Your task to perform on an android device: check data usage Image 0: 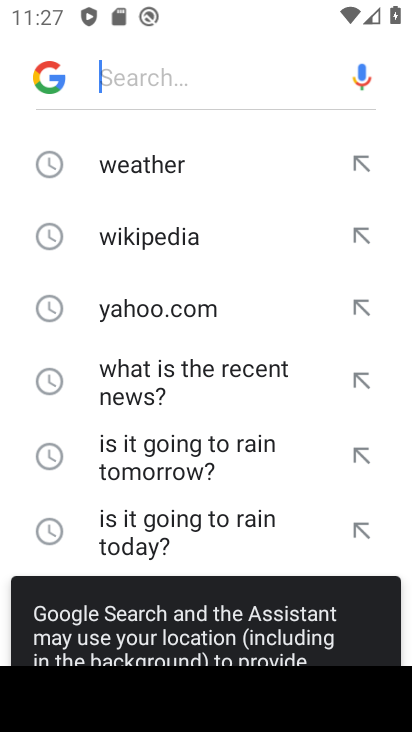
Step 0: press home button
Your task to perform on an android device: check data usage Image 1: 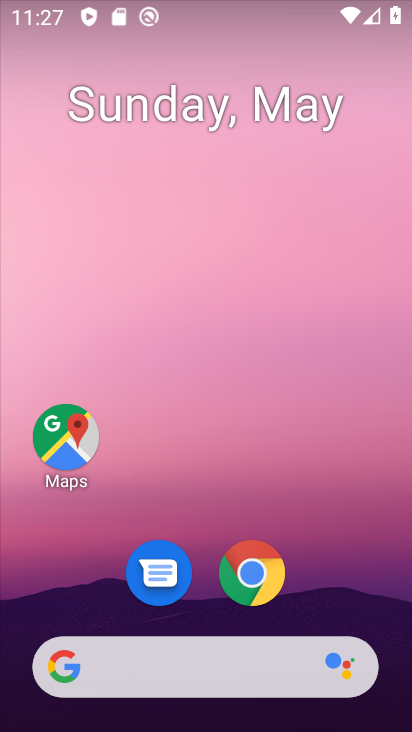
Step 1: drag from (81, 632) to (146, 139)
Your task to perform on an android device: check data usage Image 2: 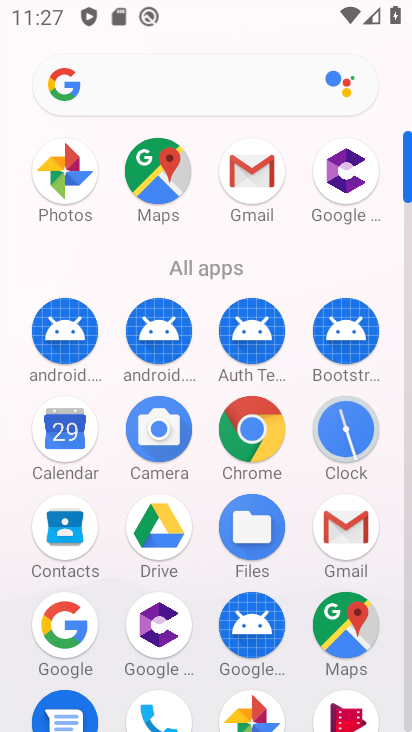
Step 2: drag from (148, 628) to (200, 357)
Your task to perform on an android device: check data usage Image 3: 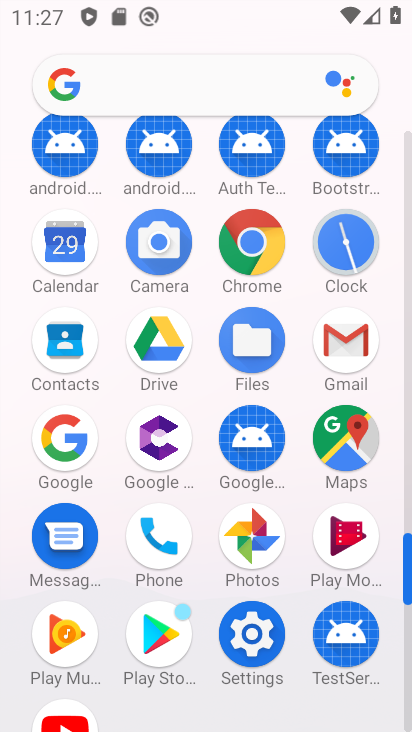
Step 3: click (262, 630)
Your task to perform on an android device: check data usage Image 4: 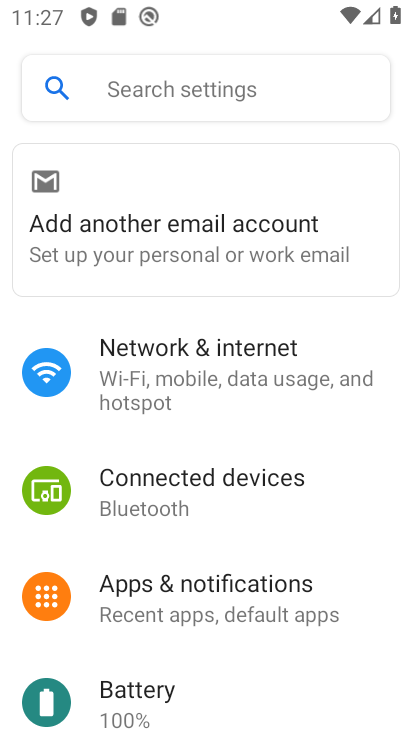
Step 4: drag from (185, 605) to (263, 194)
Your task to perform on an android device: check data usage Image 5: 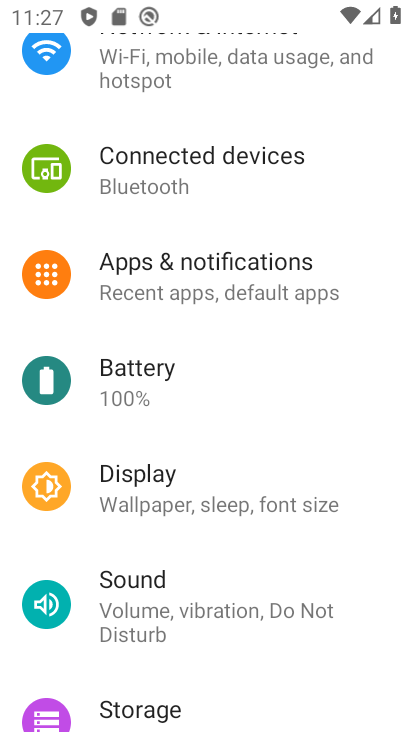
Step 5: click (282, 81)
Your task to perform on an android device: check data usage Image 6: 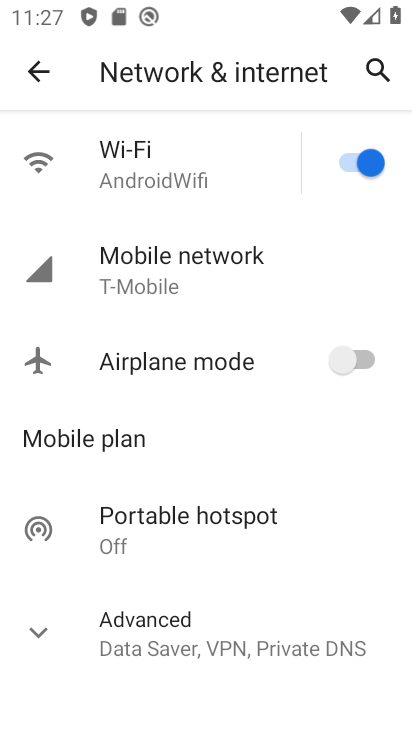
Step 6: click (211, 258)
Your task to perform on an android device: check data usage Image 7: 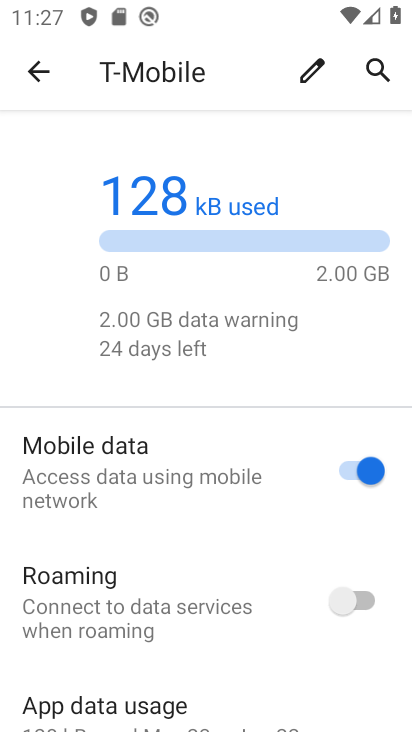
Step 7: drag from (152, 661) to (221, 433)
Your task to perform on an android device: check data usage Image 8: 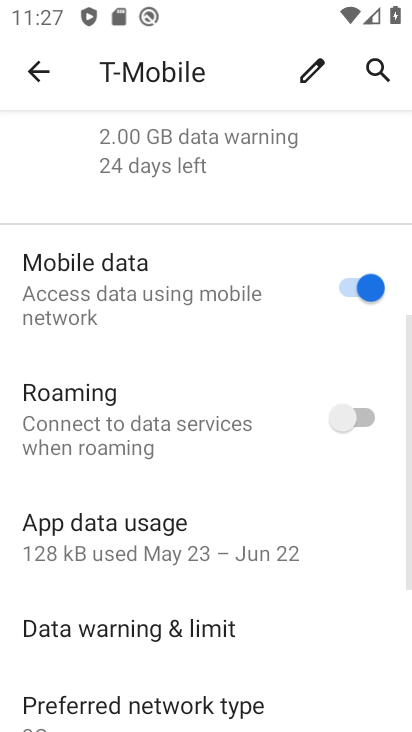
Step 8: click (186, 557)
Your task to perform on an android device: check data usage Image 9: 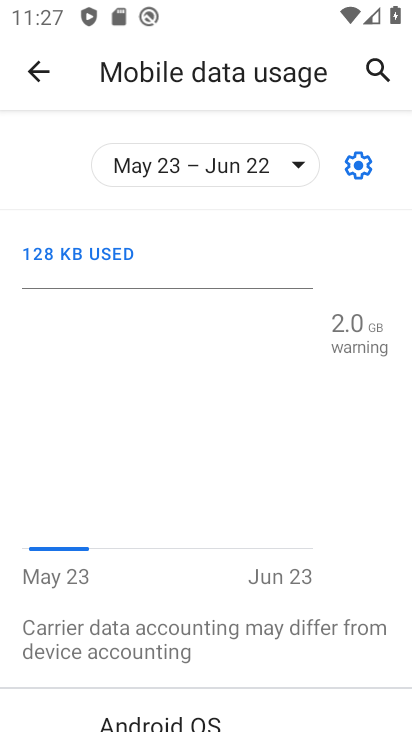
Step 9: task complete